Your task to perform on an android device: turn on airplane mode Image 0: 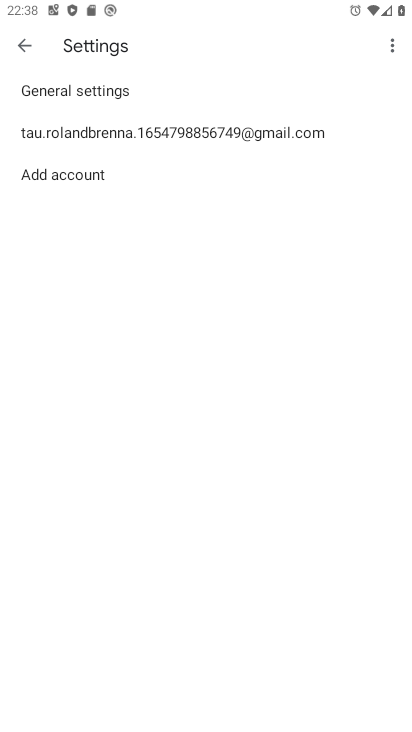
Step 0: press home button
Your task to perform on an android device: turn on airplane mode Image 1: 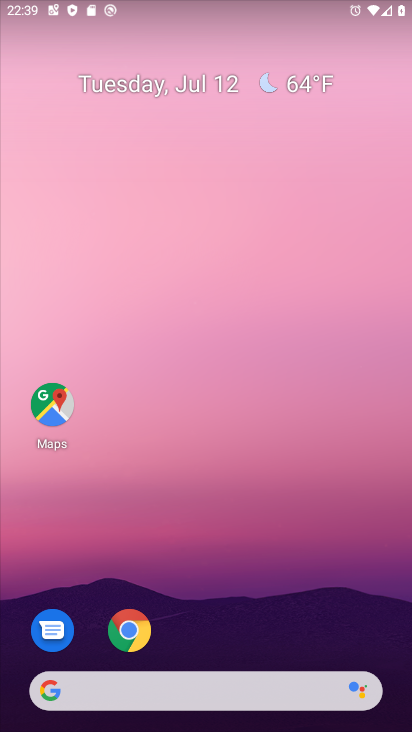
Step 1: drag from (211, 657) to (276, 23)
Your task to perform on an android device: turn on airplane mode Image 2: 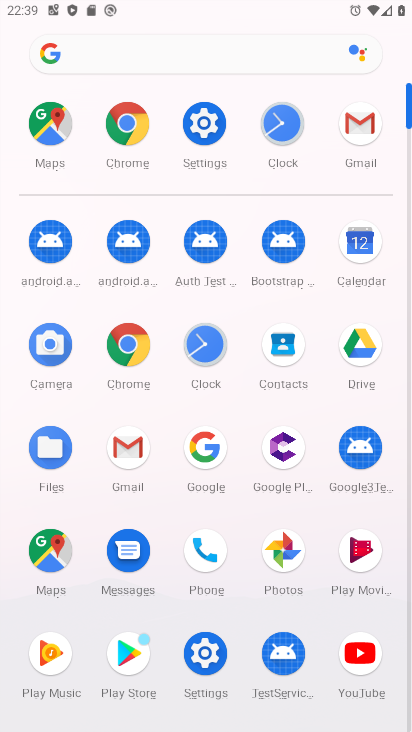
Step 2: click (209, 132)
Your task to perform on an android device: turn on airplane mode Image 3: 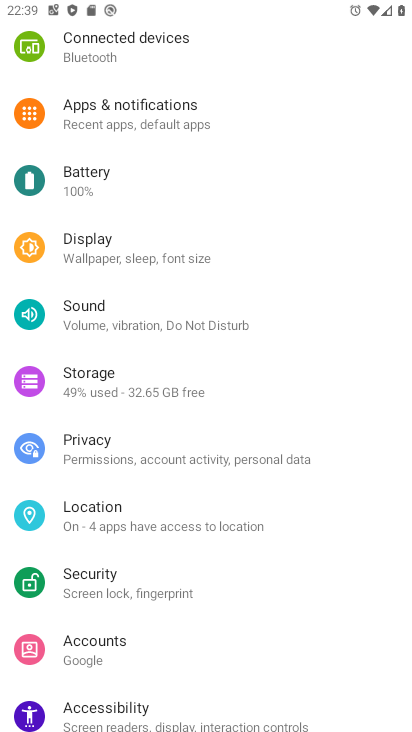
Step 3: drag from (209, 132) to (175, 666)
Your task to perform on an android device: turn on airplane mode Image 4: 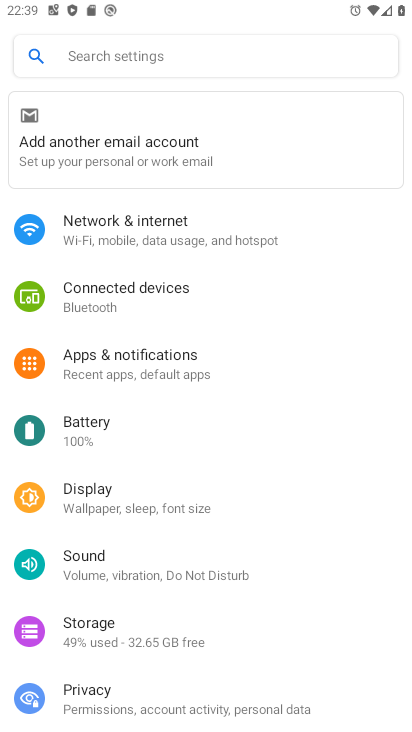
Step 4: click (122, 248)
Your task to perform on an android device: turn on airplane mode Image 5: 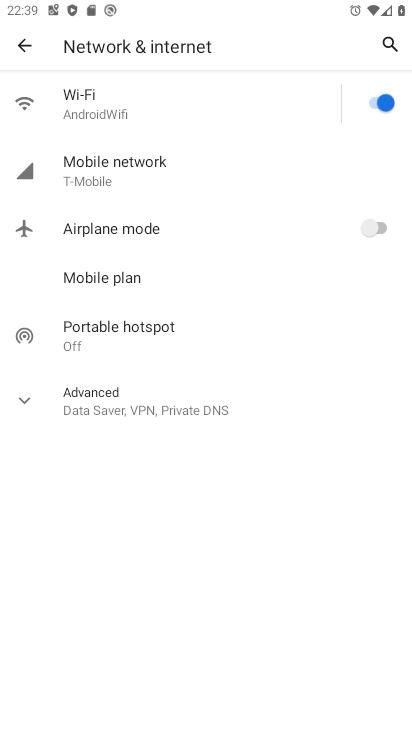
Step 5: click (374, 225)
Your task to perform on an android device: turn on airplane mode Image 6: 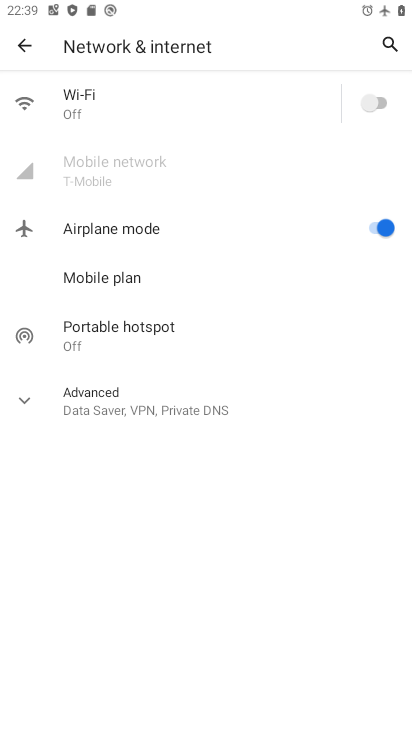
Step 6: task complete